Your task to perform on an android device: Go to Amazon Image 0: 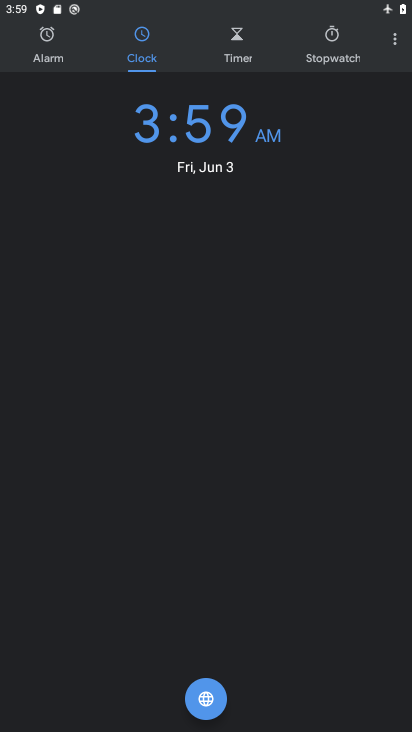
Step 0: press home button
Your task to perform on an android device: Go to Amazon Image 1: 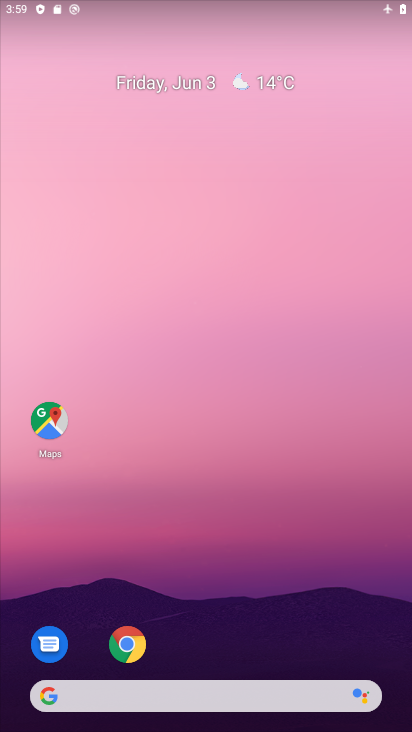
Step 1: click (127, 640)
Your task to perform on an android device: Go to Amazon Image 2: 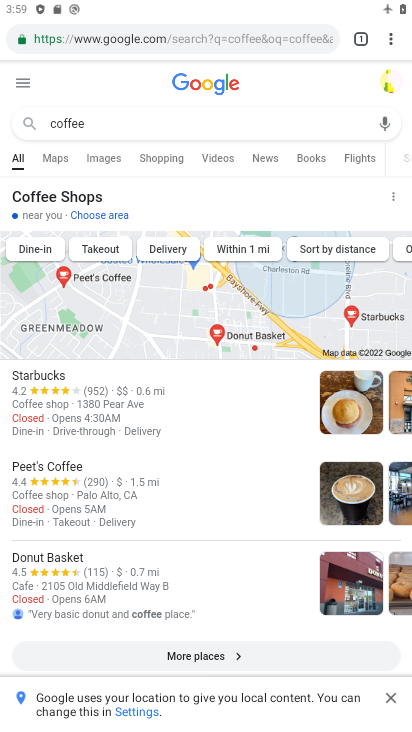
Step 2: click (358, 39)
Your task to perform on an android device: Go to Amazon Image 3: 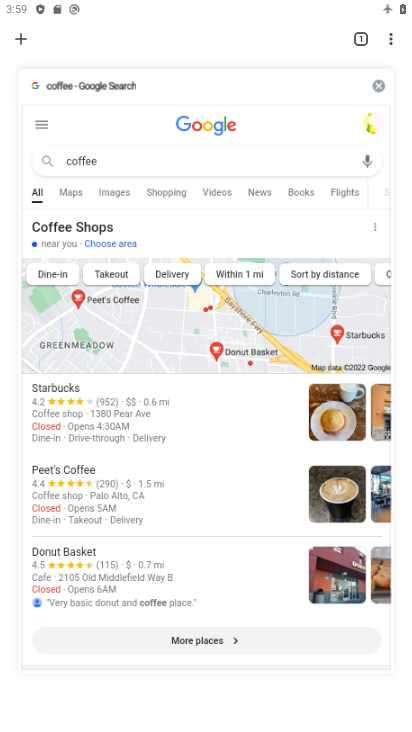
Step 3: click (22, 50)
Your task to perform on an android device: Go to Amazon Image 4: 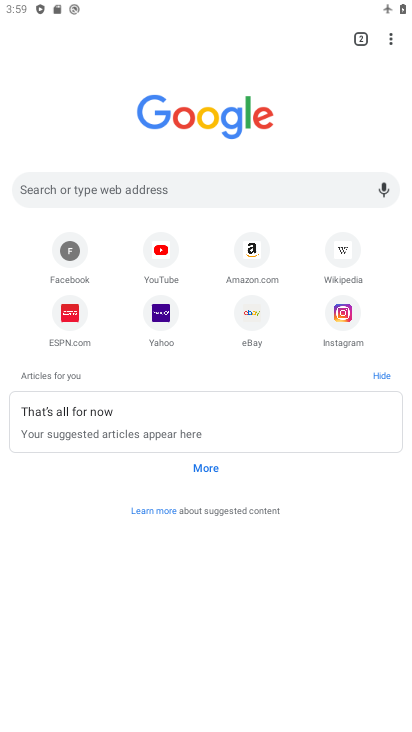
Step 4: click (252, 246)
Your task to perform on an android device: Go to Amazon Image 5: 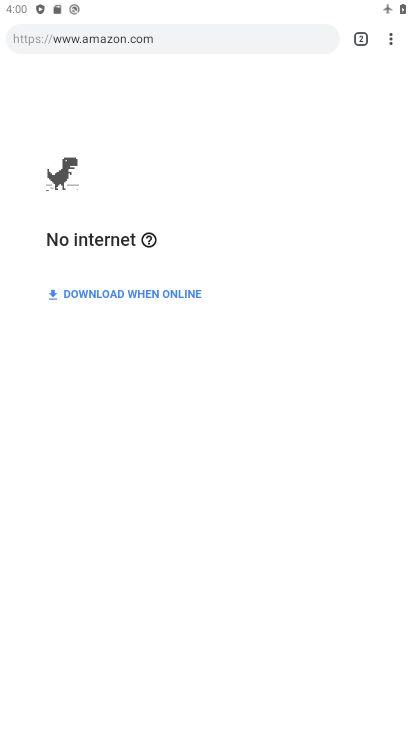
Step 5: task complete